Your task to perform on an android device: What's the weather? Image 0: 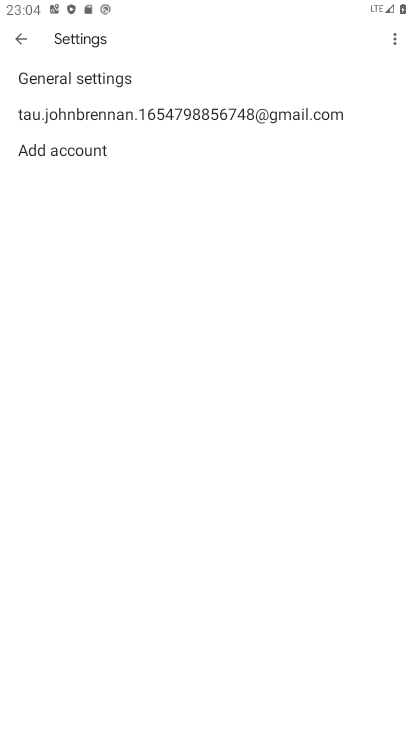
Step 0: press home button
Your task to perform on an android device: What's the weather? Image 1: 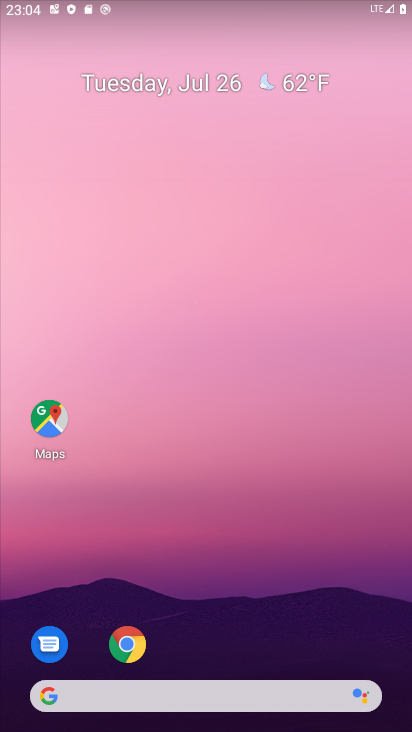
Step 1: click (110, 699)
Your task to perform on an android device: What's the weather? Image 2: 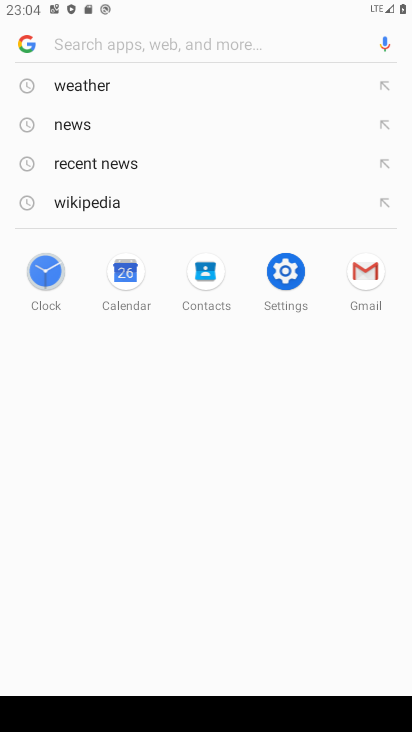
Step 2: click (86, 88)
Your task to perform on an android device: What's the weather? Image 3: 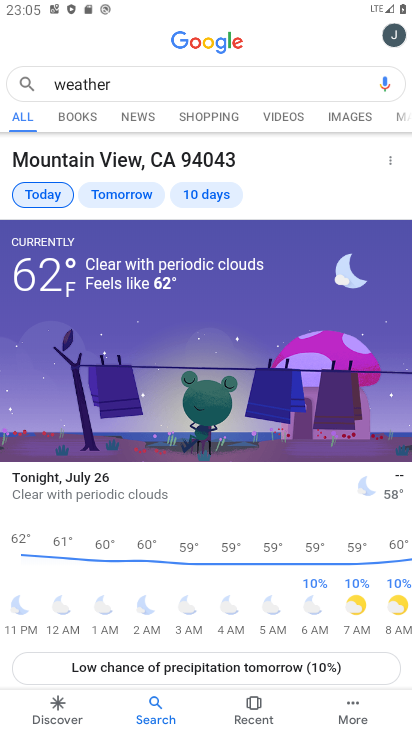
Step 3: task complete